Your task to perform on an android device: change the clock style Image 0: 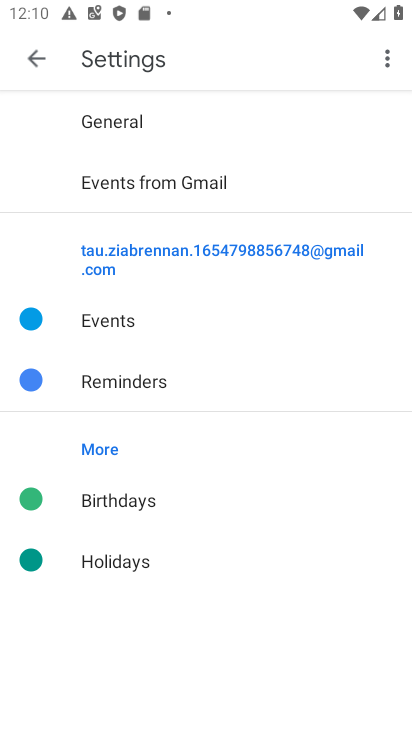
Step 0: press home button
Your task to perform on an android device: change the clock style Image 1: 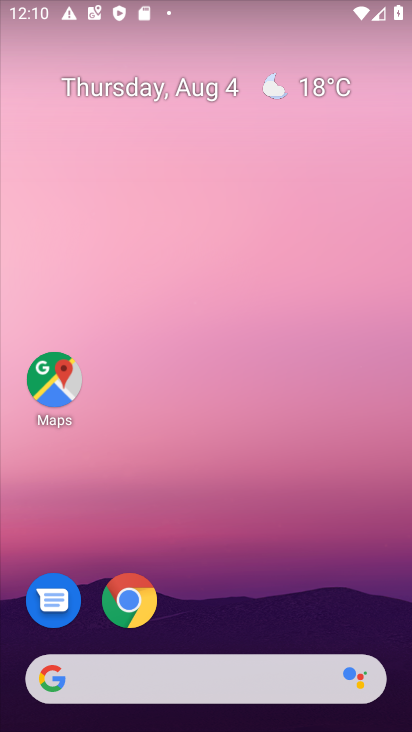
Step 1: drag from (167, 681) to (296, 139)
Your task to perform on an android device: change the clock style Image 2: 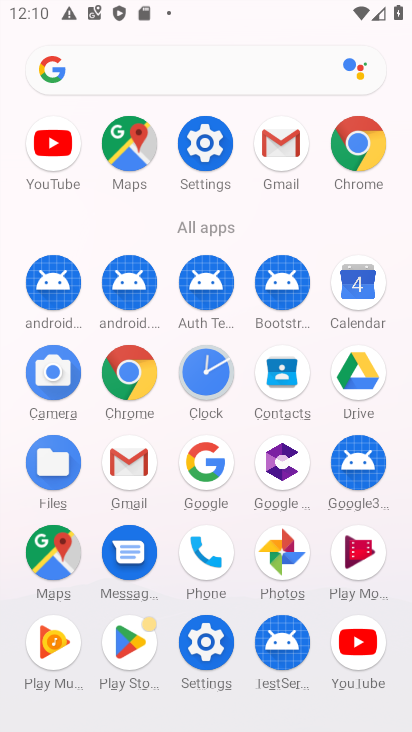
Step 2: click (206, 384)
Your task to perform on an android device: change the clock style Image 3: 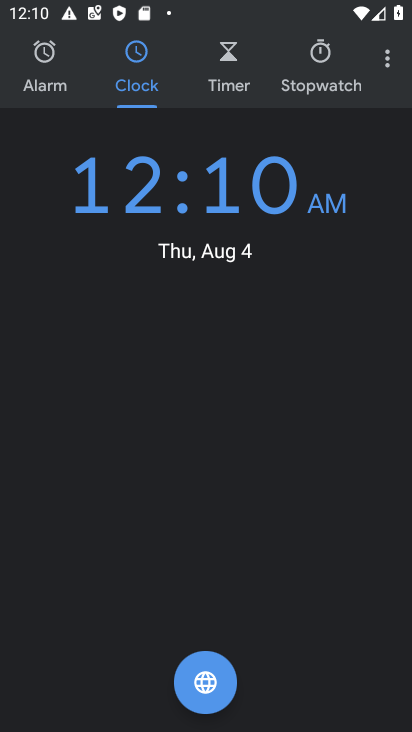
Step 3: click (386, 57)
Your task to perform on an android device: change the clock style Image 4: 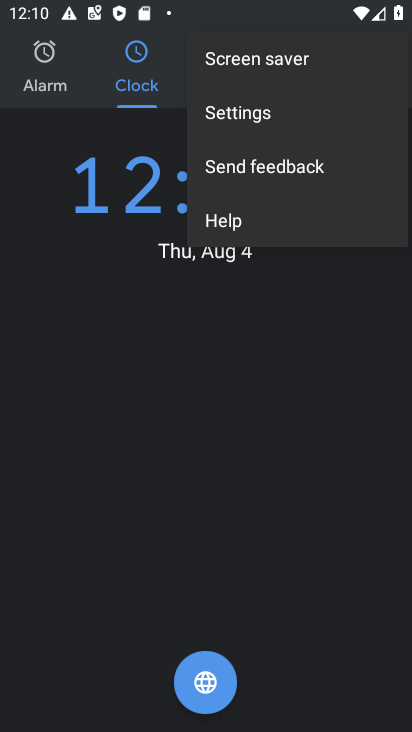
Step 4: click (250, 112)
Your task to perform on an android device: change the clock style Image 5: 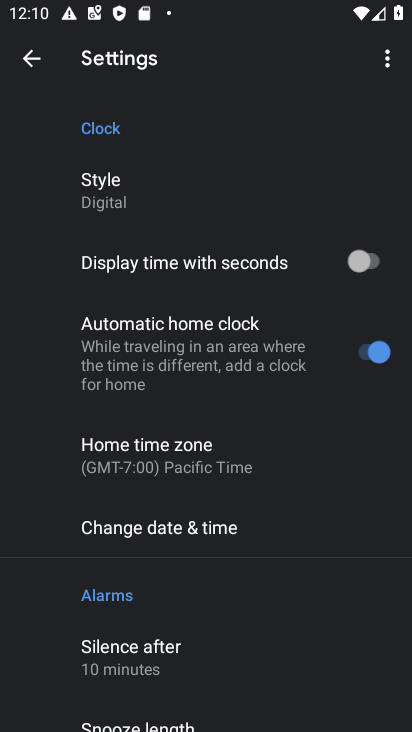
Step 5: click (105, 193)
Your task to perform on an android device: change the clock style Image 6: 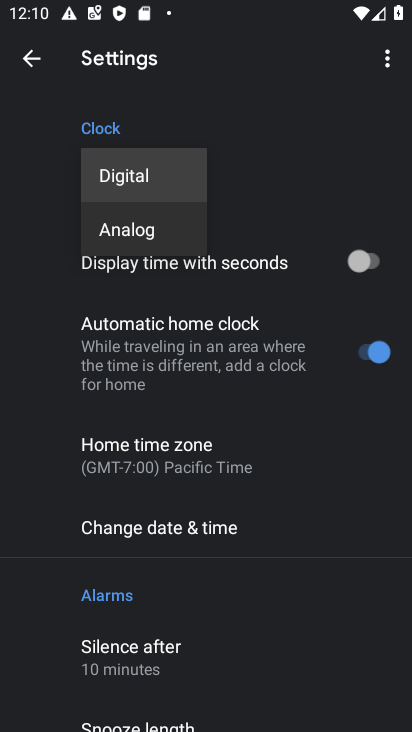
Step 6: click (133, 227)
Your task to perform on an android device: change the clock style Image 7: 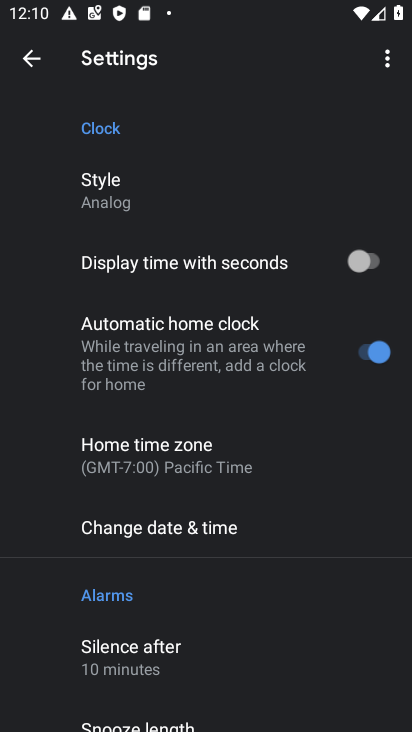
Step 7: task complete